Your task to perform on an android device: open chrome and create a bookmark for the current page Image 0: 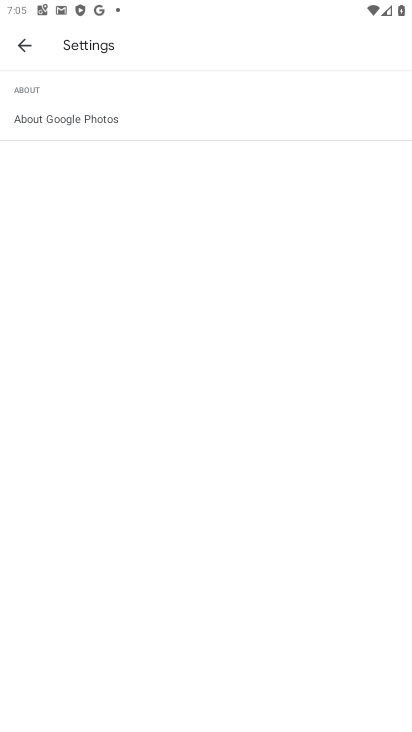
Step 0: press home button
Your task to perform on an android device: open chrome and create a bookmark for the current page Image 1: 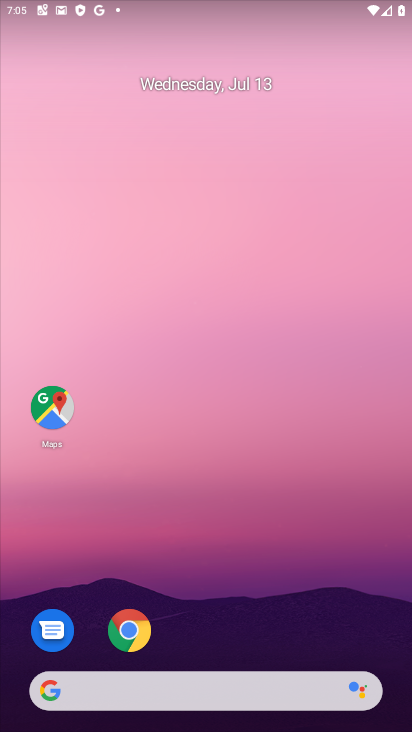
Step 1: drag from (306, 600) to (214, 0)
Your task to perform on an android device: open chrome and create a bookmark for the current page Image 2: 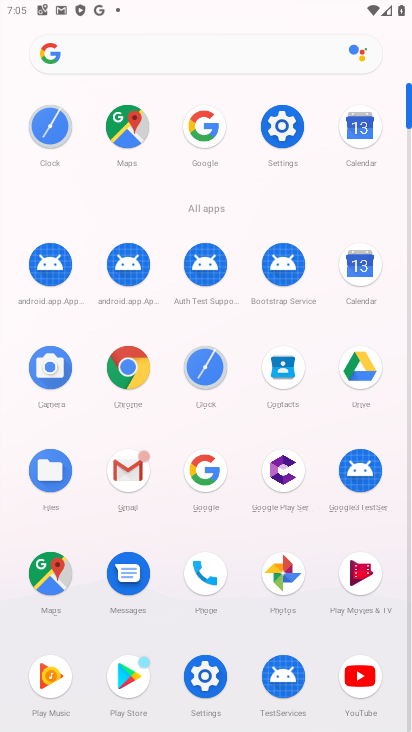
Step 2: click (130, 381)
Your task to perform on an android device: open chrome and create a bookmark for the current page Image 3: 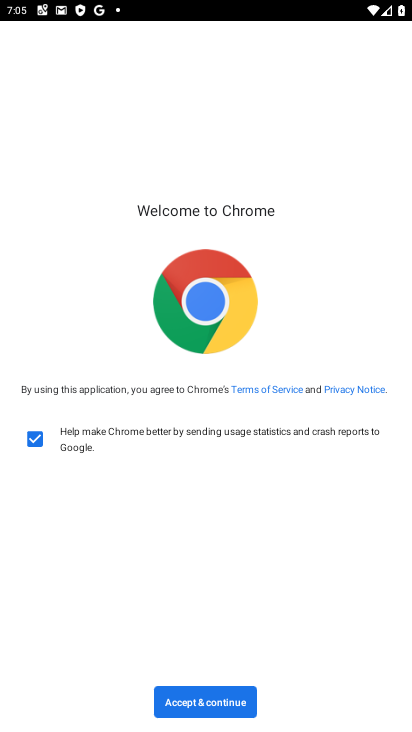
Step 3: click (220, 711)
Your task to perform on an android device: open chrome and create a bookmark for the current page Image 4: 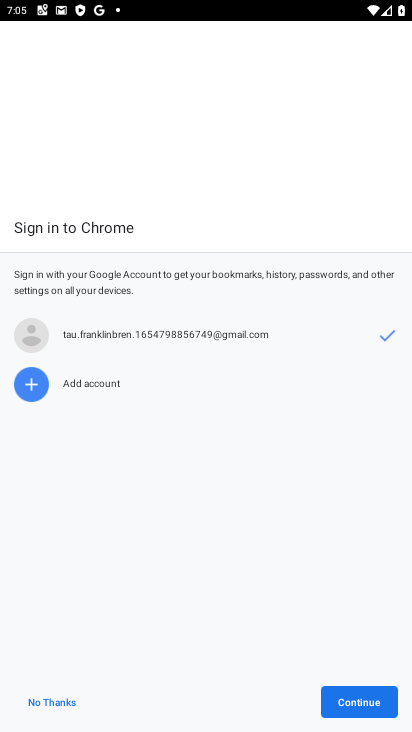
Step 4: click (349, 704)
Your task to perform on an android device: open chrome and create a bookmark for the current page Image 5: 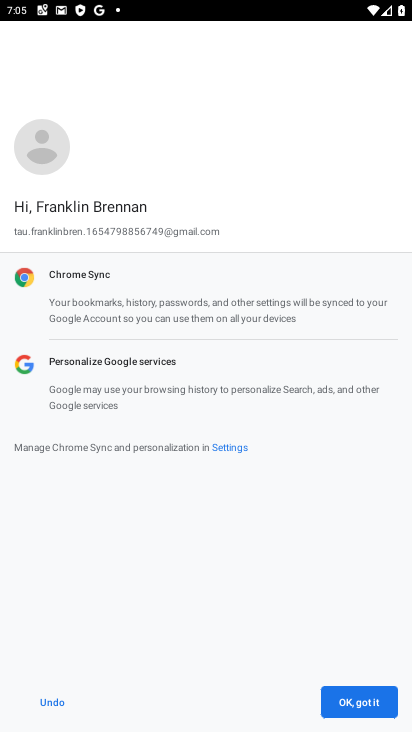
Step 5: click (349, 704)
Your task to perform on an android device: open chrome and create a bookmark for the current page Image 6: 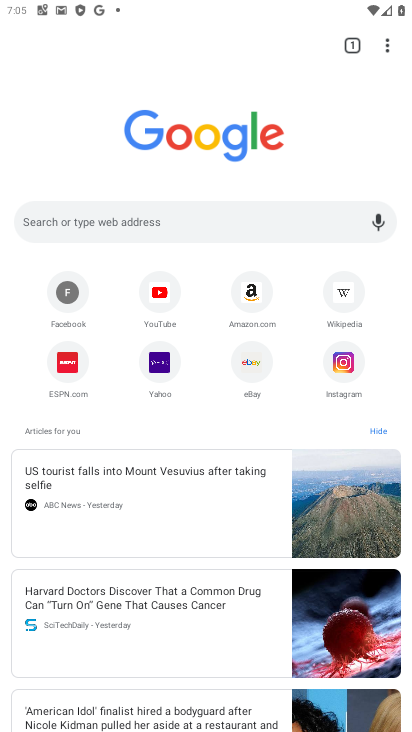
Step 6: click (380, 42)
Your task to perform on an android device: open chrome and create a bookmark for the current page Image 7: 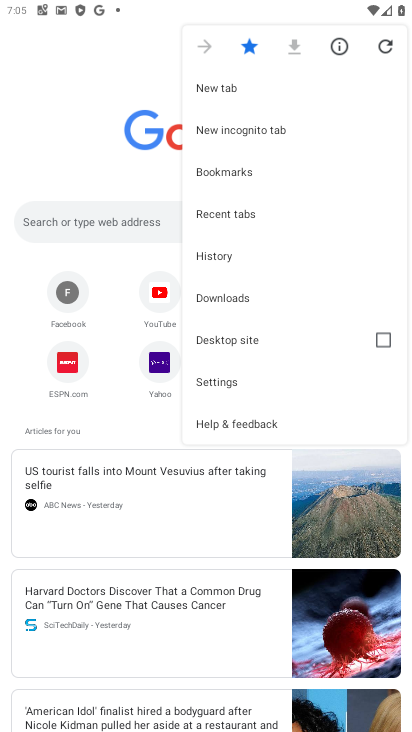
Step 7: task complete